Your task to perform on an android device: Open Android settings Image 0: 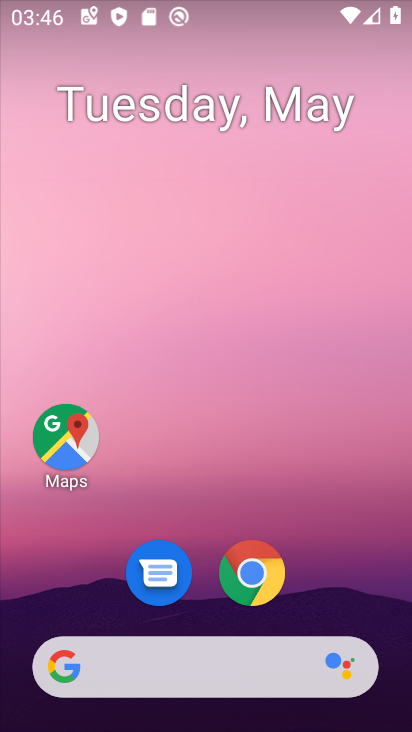
Step 0: drag from (237, 483) to (265, 9)
Your task to perform on an android device: Open Android settings Image 1: 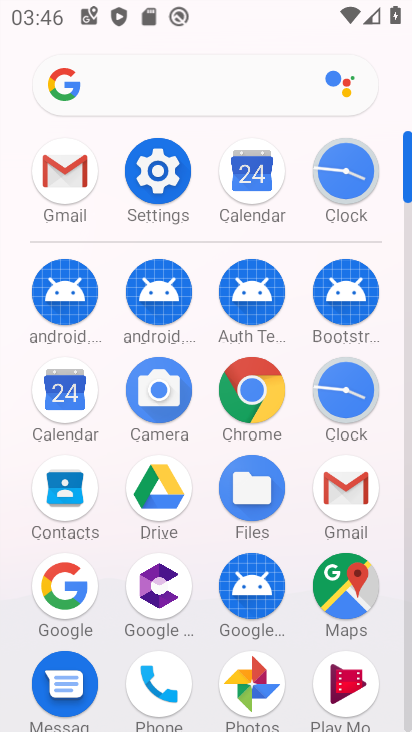
Step 1: click (163, 162)
Your task to perform on an android device: Open Android settings Image 2: 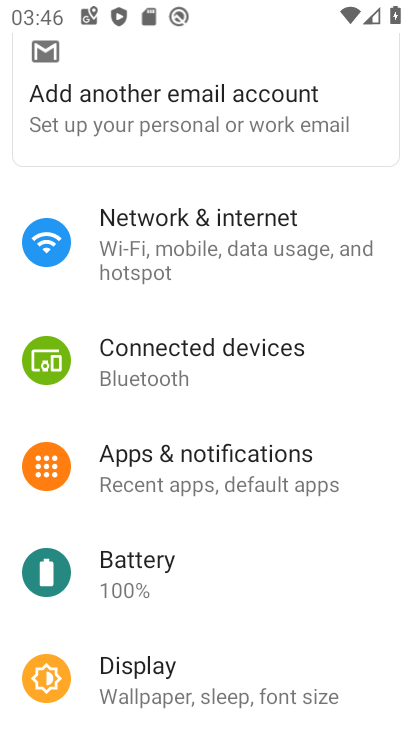
Step 2: drag from (185, 670) to (329, 71)
Your task to perform on an android device: Open Android settings Image 3: 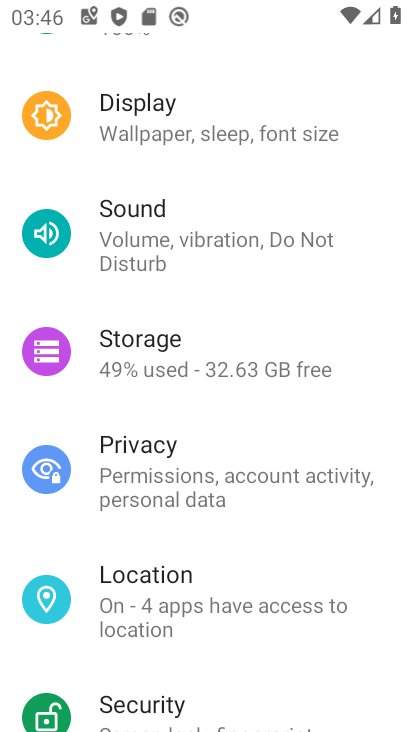
Step 3: drag from (201, 587) to (301, 22)
Your task to perform on an android device: Open Android settings Image 4: 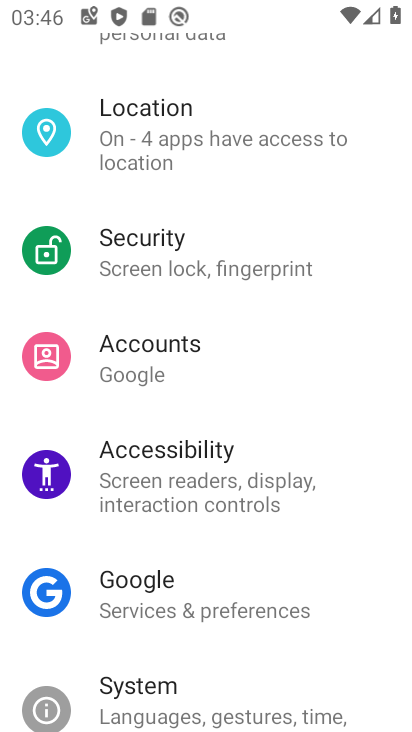
Step 4: drag from (129, 684) to (266, 37)
Your task to perform on an android device: Open Android settings Image 5: 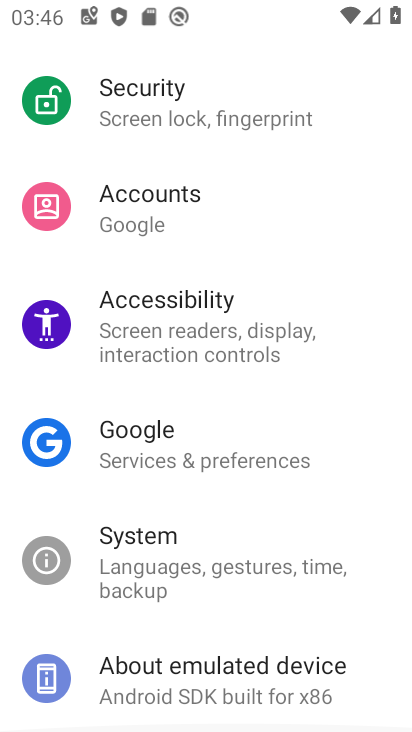
Step 5: drag from (163, 687) to (226, 296)
Your task to perform on an android device: Open Android settings Image 6: 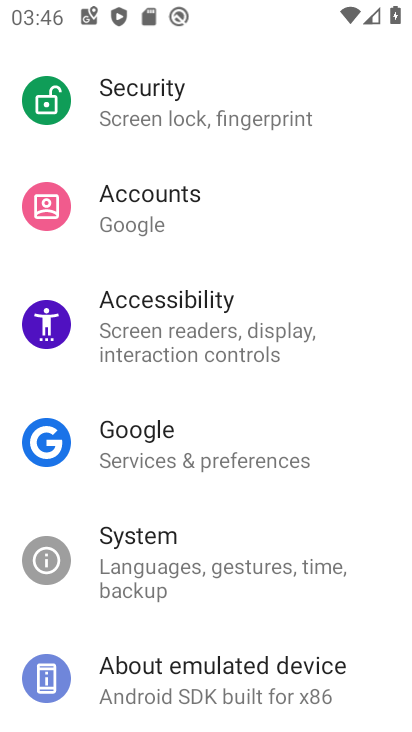
Step 6: click (155, 681)
Your task to perform on an android device: Open Android settings Image 7: 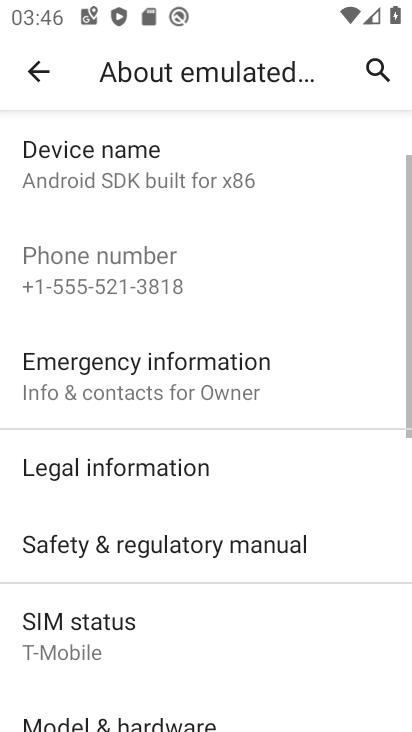
Step 7: drag from (140, 684) to (248, 108)
Your task to perform on an android device: Open Android settings Image 8: 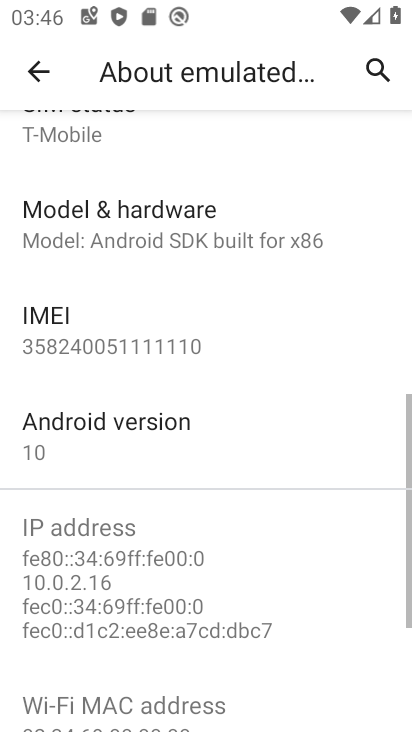
Step 8: click (160, 421)
Your task to perform on an android device: Open Android settings Image 9: 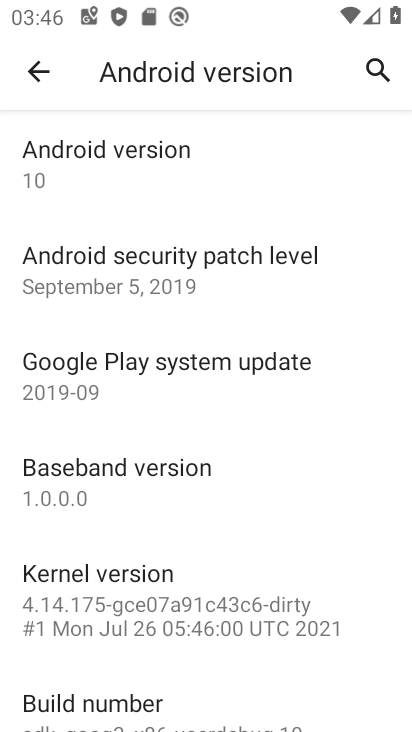
Step 9: click (90, 153)
Your task to perform on an android device: Open Android settings Image 10: 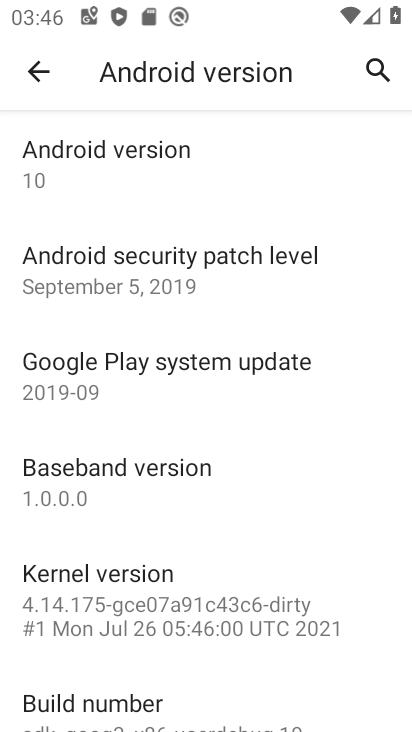
Step 10: task complete